Your task to perform on an android device: manage bookmarks in the chrome app Image 0: 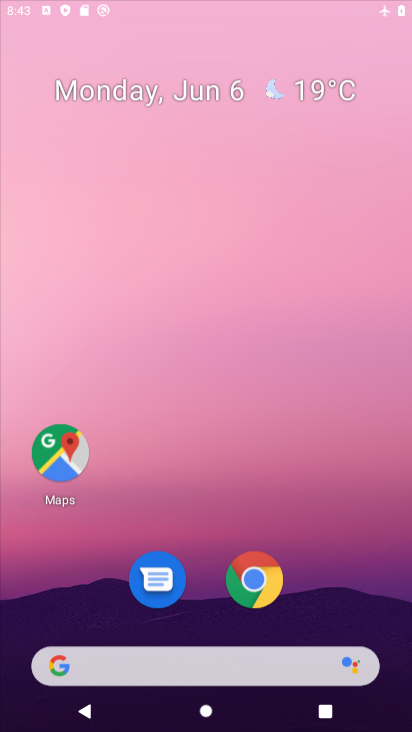
Step 0: drag from (359, 683) to (350, 160)
Your task to perform on an android device: manage bookmarks in the chrome app Image 1: 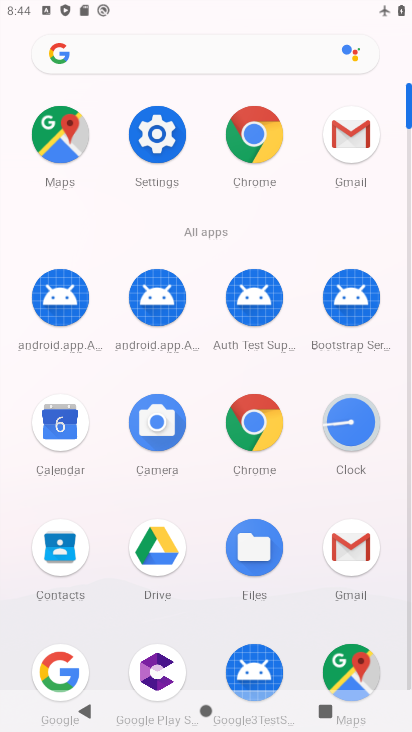
Step 1: click (244, 434)
Your task to perform on an android device: manage bookmarks in the chrome app Image 2: 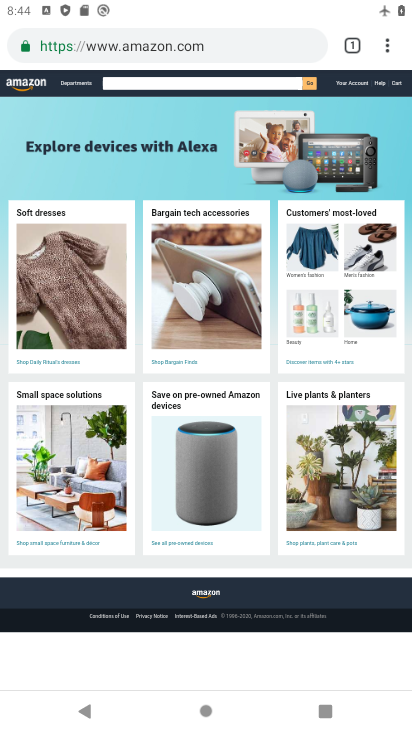
Step 2: task complete